Your task to perform on an android device: set the timer Image 0: 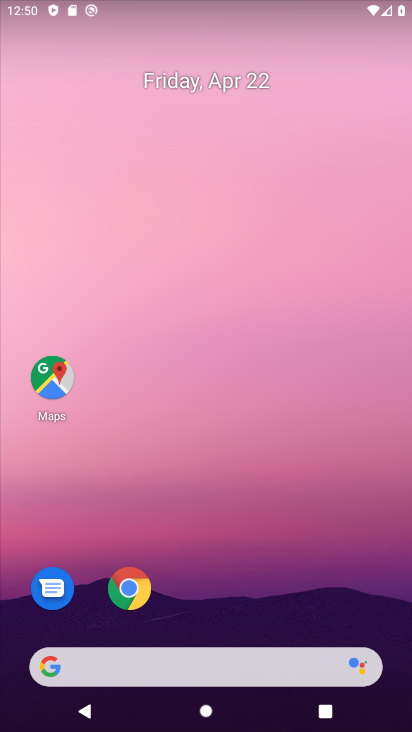
Step 0: drag from (278, 699) to (286, 230)
Your task to perform on an android device: set the timer Image 1: 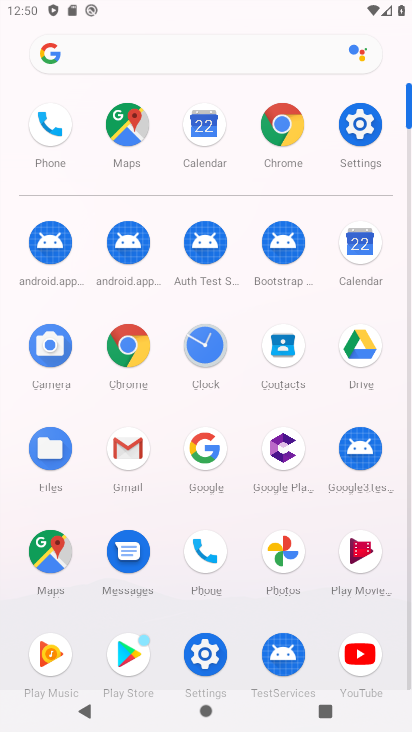
Step 1: click (208, 328)
Your task to perform on an android device: set the timer Image 2: 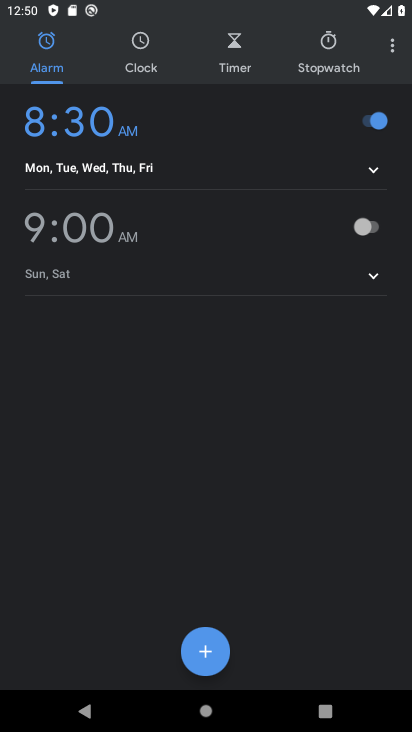
Step 2: click (236, 69)
Your task to perform on an android device: set the timer Image 3: 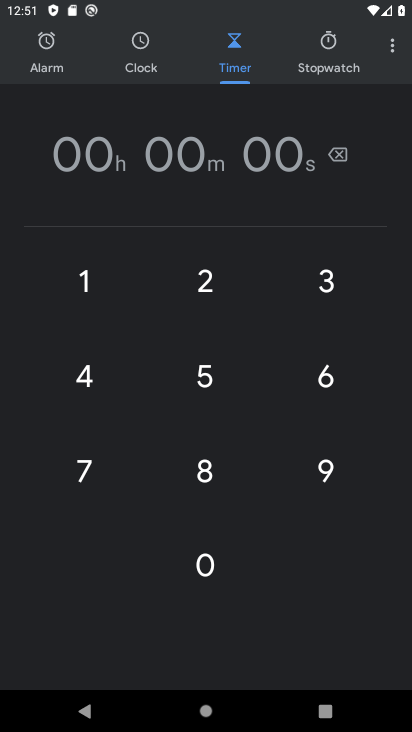
Step 3: click (217, 309)
Your task to perform on an android device: set the timer Image 4: 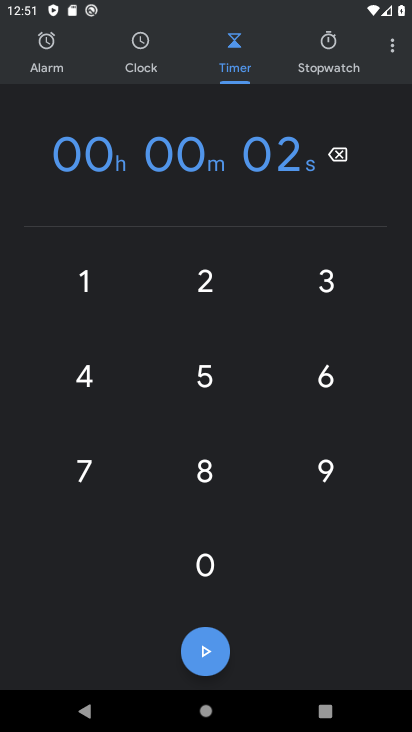
Step 4: click (206, 383)
Your task to perform on an android device: set the timer Image 5: 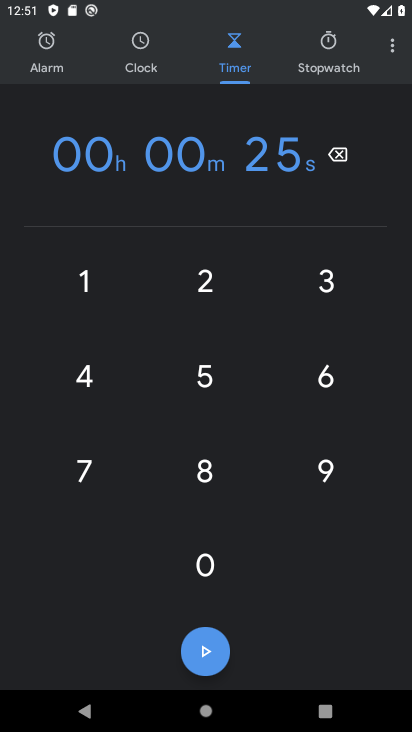
Step 5: click (97, 400)
Your task to perform on an android device: set the timer Image 6: 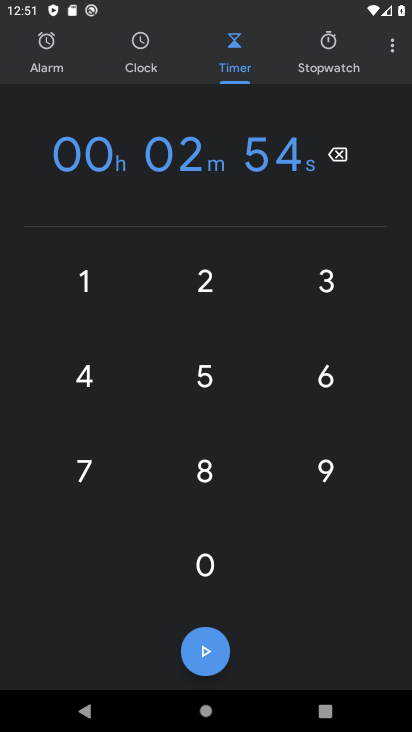
Step 6: click (89, 470)
Your task to perform on an android device: set the timer Image 7: 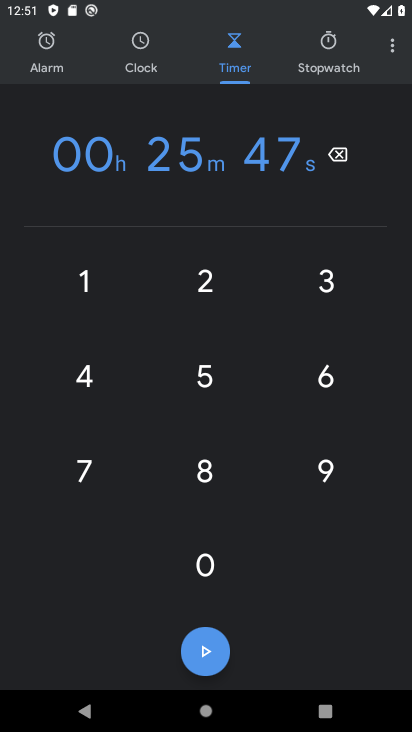
Step 7: click (292, 489)
Your task to perform on an android device: set the timer Image 8: 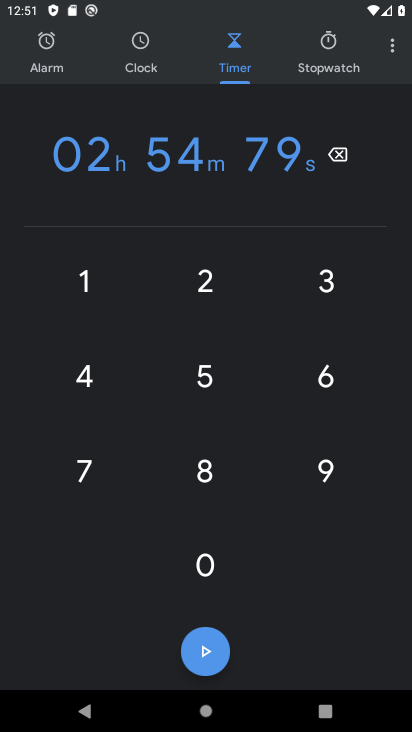
Step 8: click (205, 648)
Your task to perform on an android device: set the timer Image 9: 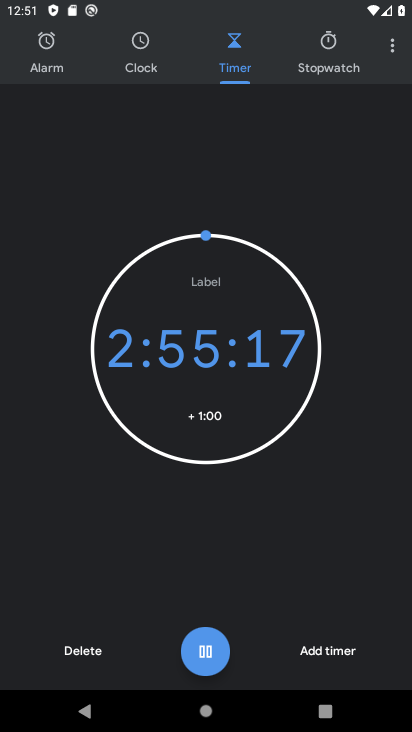
Step 9: click (199, 655)
Your task to perform on an android device: set the timer Image 10: 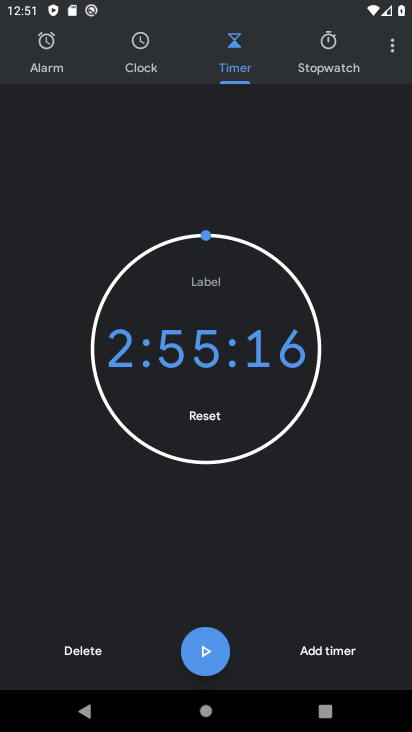
Step 10: task complete